Your task to perform on an android device: toggle location history Image 0: 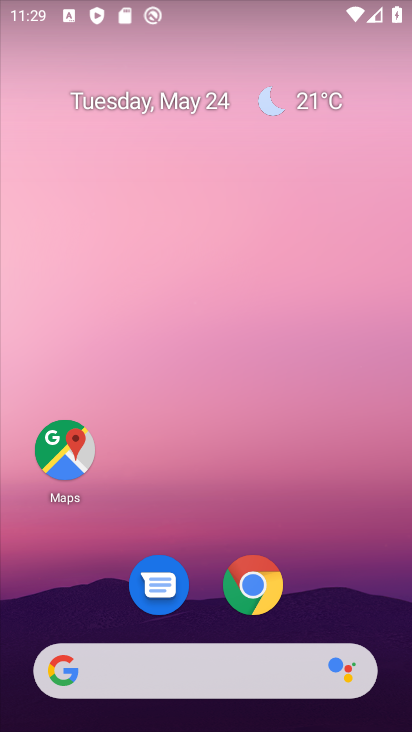
Step 0: drag from (239, 464) to (235, 0)
Your task to perform on an android device: toggle location history Image 1: 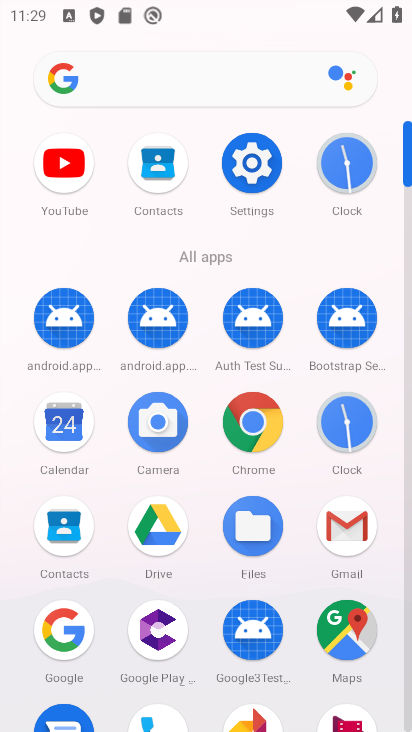
Step 1: click (242, 166)
Your task to perform on an android device: toggle location history Image 2: 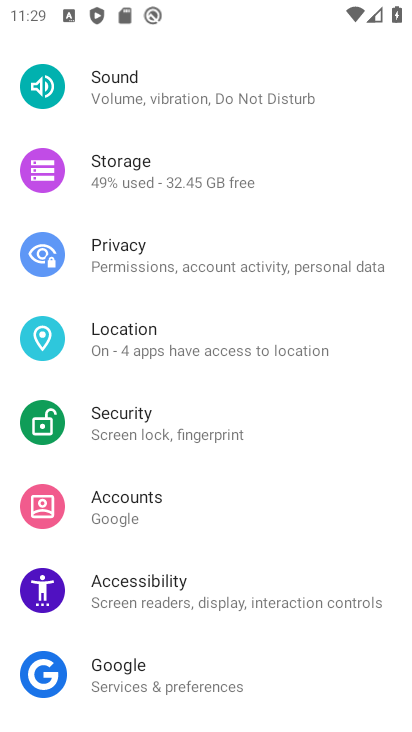
Step 2: click (238, 342)
Your task to perform on an android device: toggle location history Image 3: 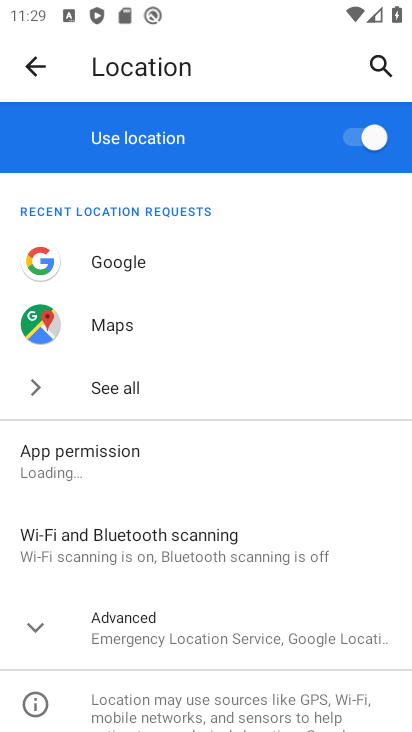
Step 3: click (36, 622)
Your task to perform on an android device: toggle location history Image 4: 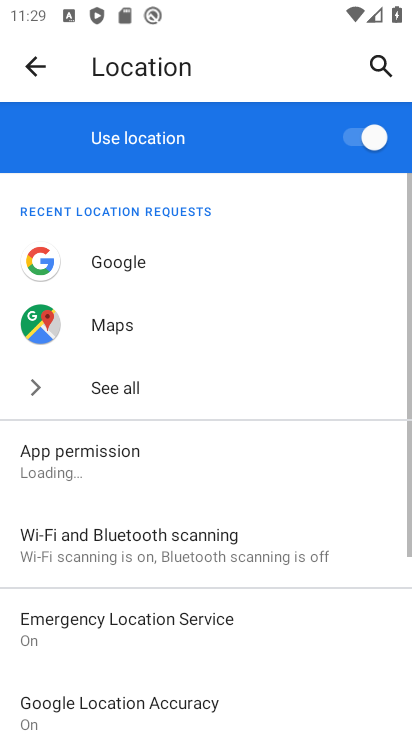
Step 4: drag from (278, 547) to (316, 204)
Your task to perform on an android device: toggle location history Image 5: 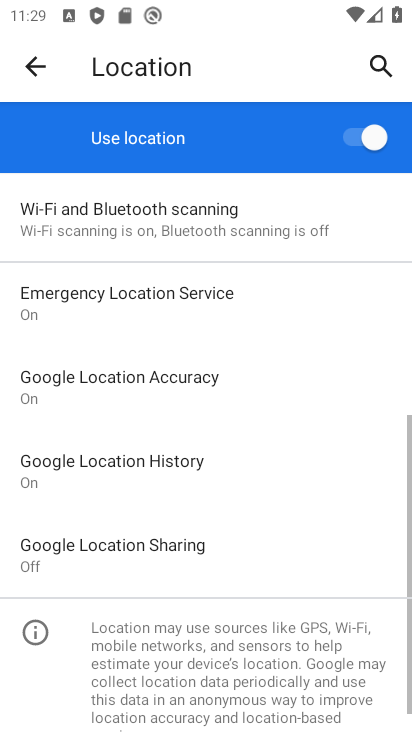
Step 5: click (166, 471)
Your task to perform on an android device: toggle location history Image 6: 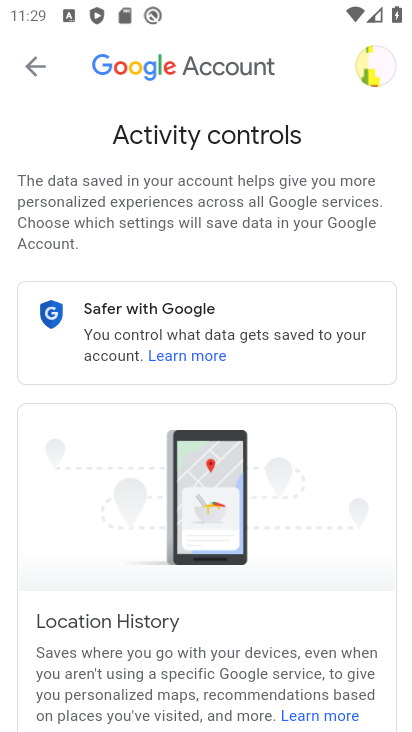
Step 6: drag from (253, 573) to (310, 183)
Your task to perform on an android device: toggle location history Image 7: 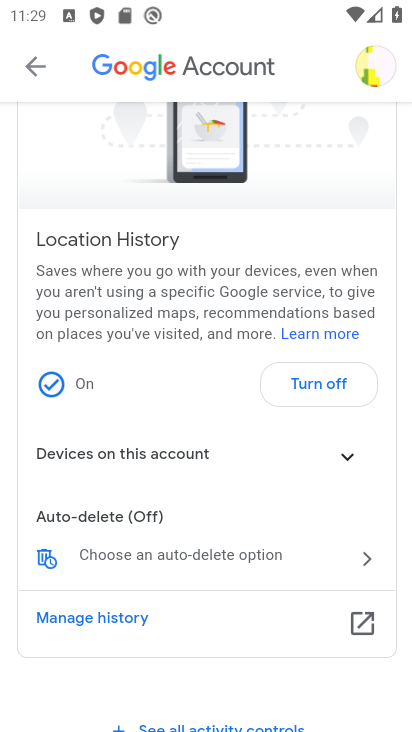
Step 7: click (307, 374)
Your task to perform on an android device: toggle location history Image 8: 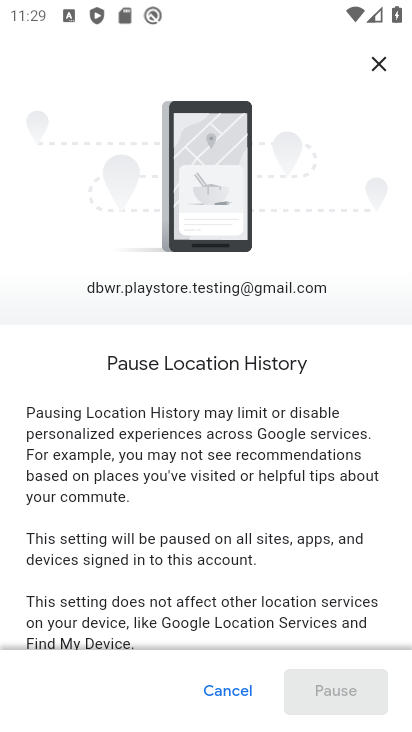
Step 8: drag from (249, 465) to (275, 75)
Your task to perform on an android device: toggle location history Image 9: 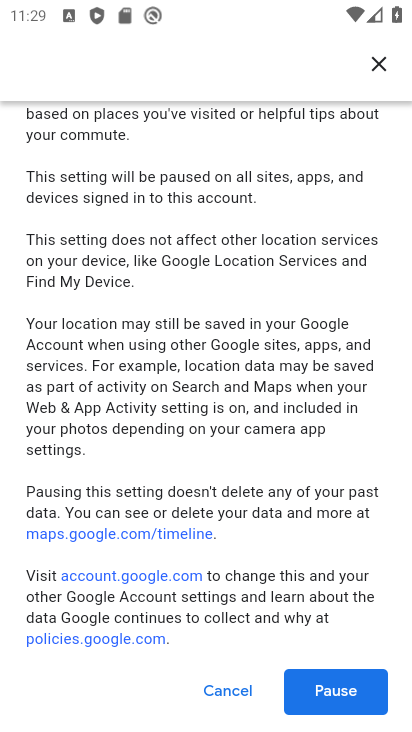
Step 9: drag from (240, 441) to (271, 240)
Your task to perform on an android device: toggle location history Image 10: 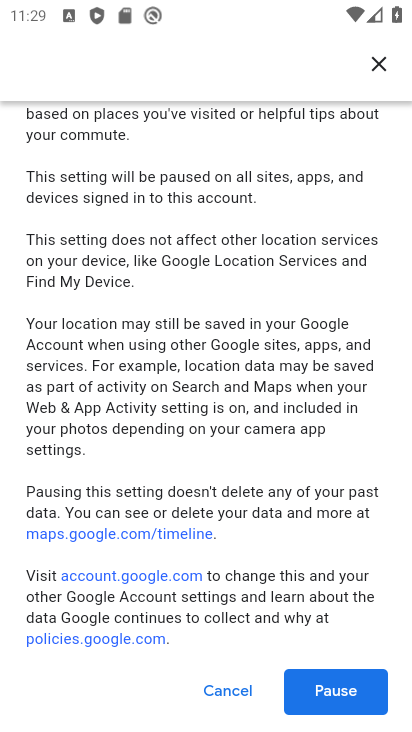
Step 10: click (326, 690)
Your task to perform on an android device: toggle location history Image 11: 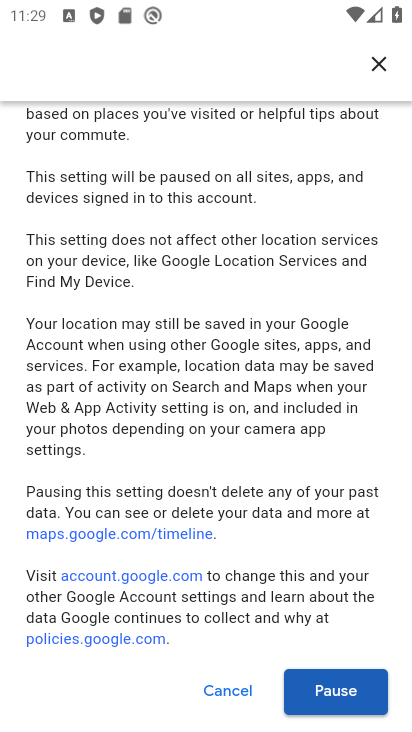
Step 11: click (326, 688)
Your task to perform on an android device: toggle location history Image 12: 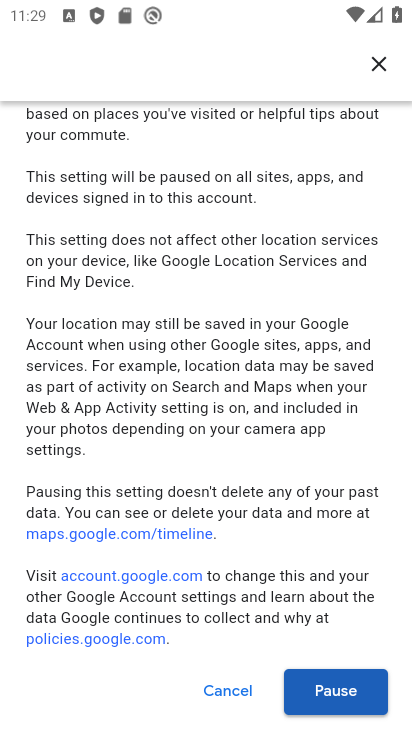
Step 12: click (326, 688)
Your task to perform on an android device: toggle location history Image 13: 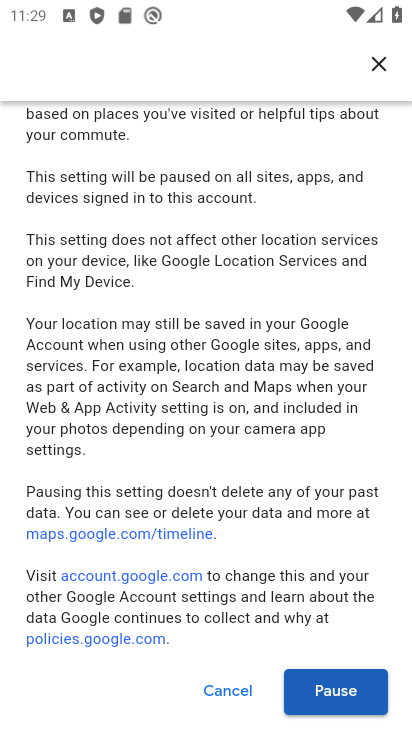
Step 13: click (351, 685)
Your task to perform on an android device: toggle location history Image 14: 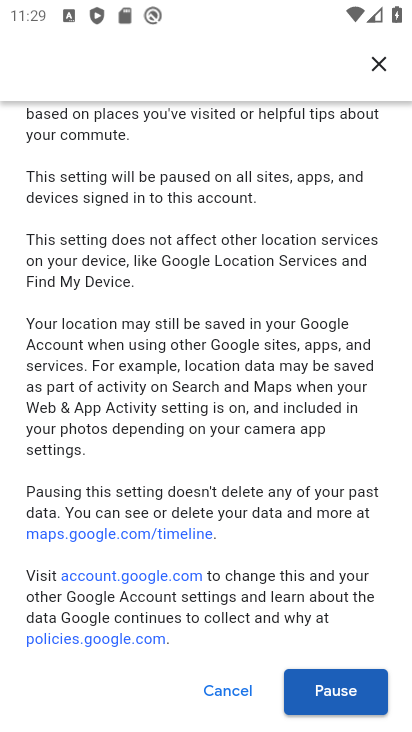
Step 14: click (351, 685)
Your task to perform on an android device: toggle location history Image 15: 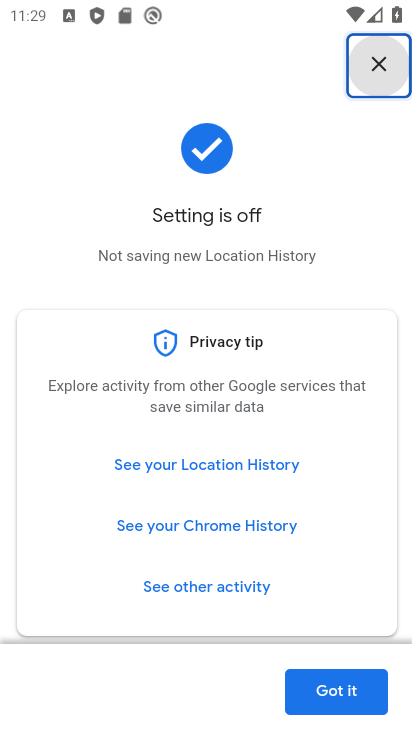
Step 15: click (351, 683)
Your task to perform on an android device: toggle location history Image 16: 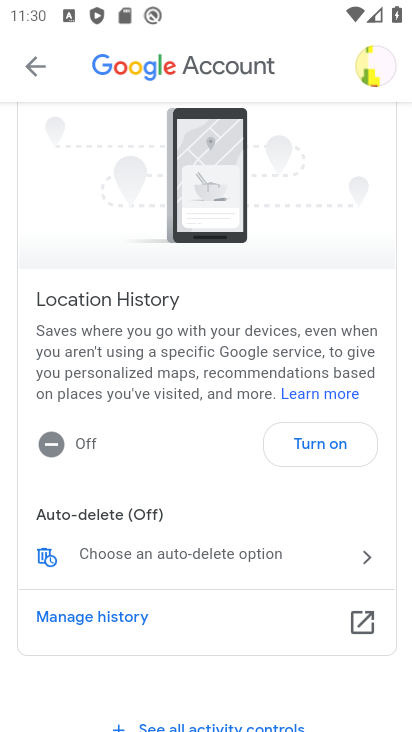
Step 16: task complete